Your task to perform on an android device: Go to Android settings Image 0: 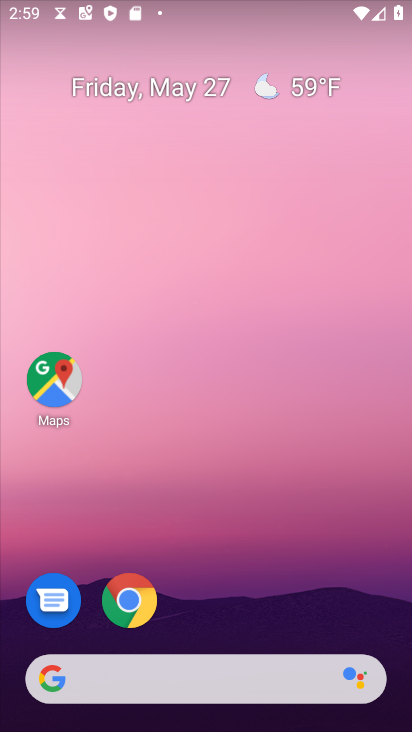
Step 0: drag from (245, 598) to (215, 70)
Your task to perform on an android device: Go to Android settings Image 1: 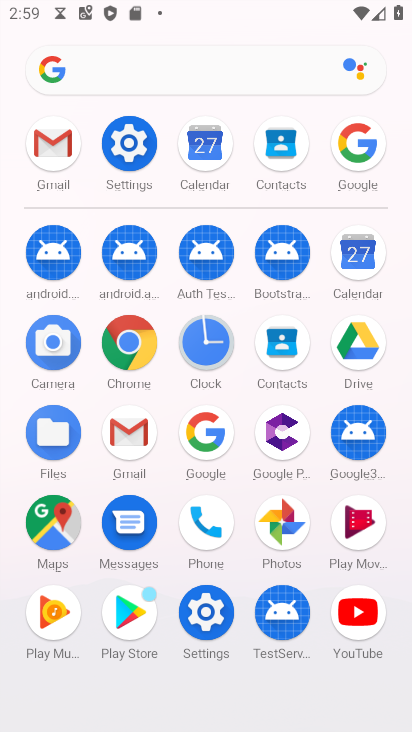
Step 1: click (130, 143)
Your task to perform on an android device: Go to Android settings Image 2: 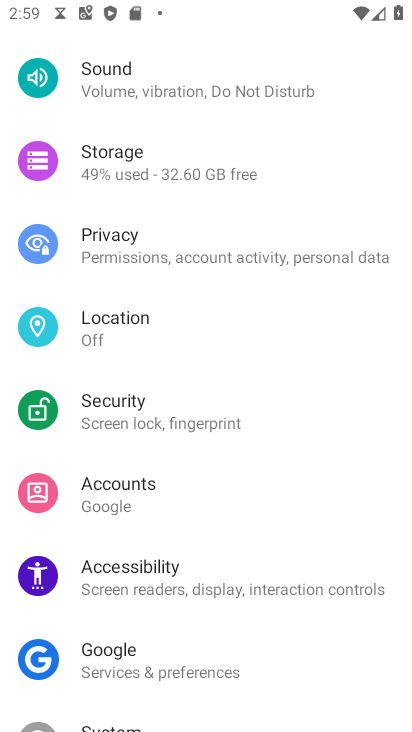
Step 2: task complete